Your task to perform on an android device: open a new tab in the chrome app Image 0: 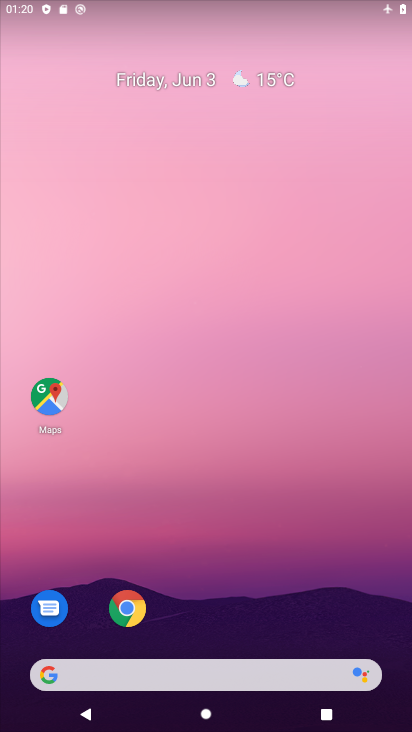
Step 0: click (130, 608)
Your task to perform on an android device: open a new tab in the chrome app Image 1: 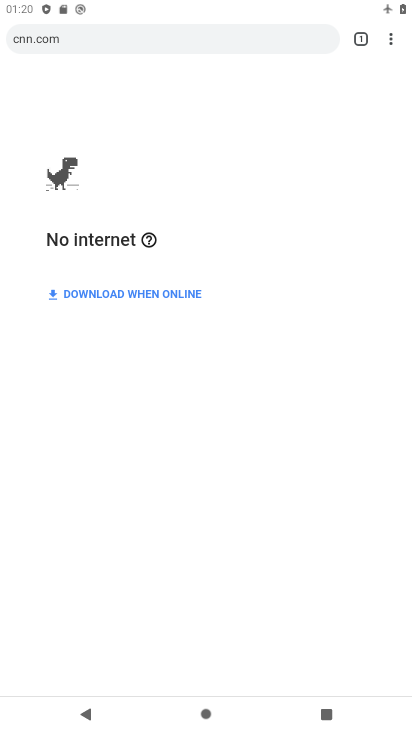
Step 1: task complete